Your task to perform on an android device: Open Google Chrome Image 0: 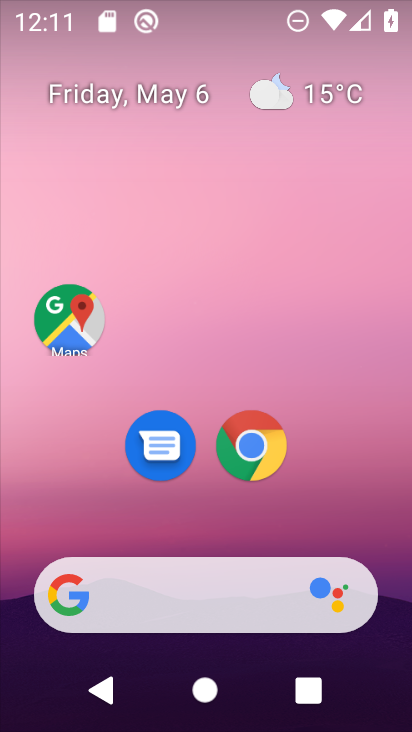
Step 0: click (264, 446)
Your task to perform on an android device: Open Google Chrome Image 1: 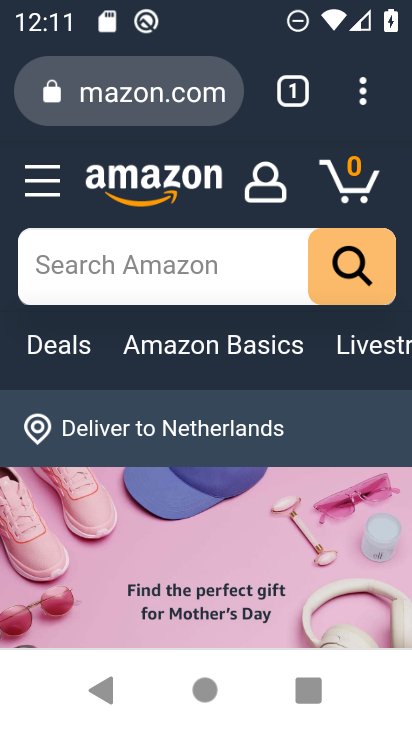
Step 1: task complete